Your task to perform on an android device: Go to Yahoo.com Image 0: 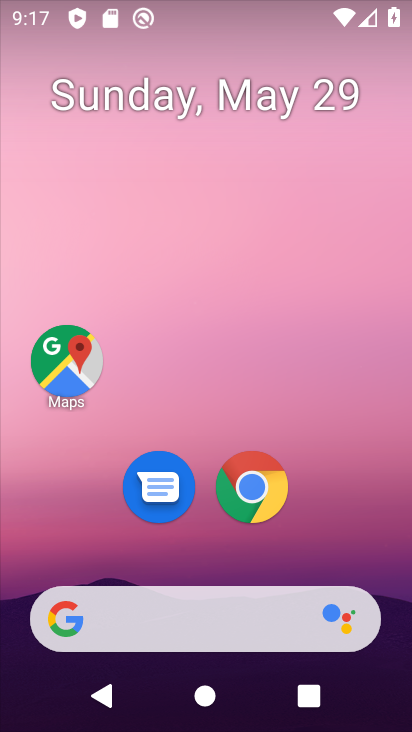
Step 0: click (254, 486)
Your task to perform on an android device: Go to Yahoo.com Image 1: 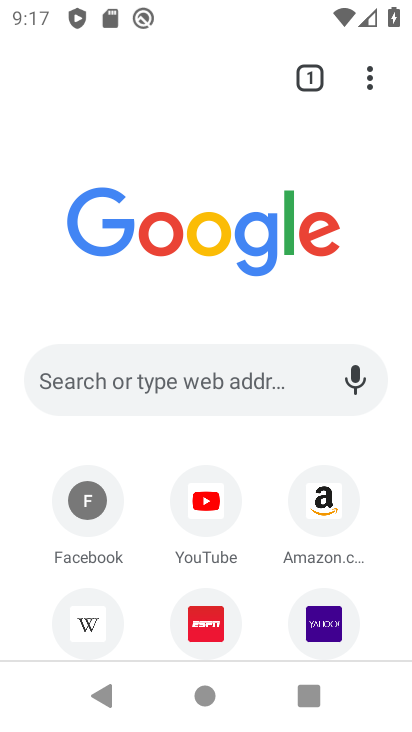
Step 1: click (198, 386)
Your task to perform on an android device: Go to Yahoo.com Image 2: 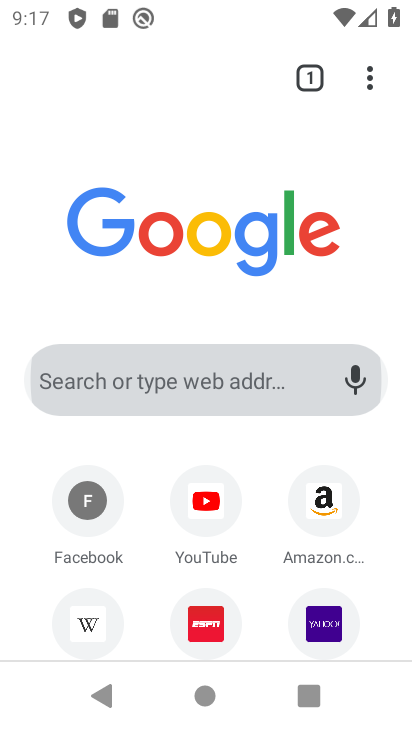
Step 2: click (198, 386)
Your task to perform on an android device: Go to Yahoo.com Image 3: 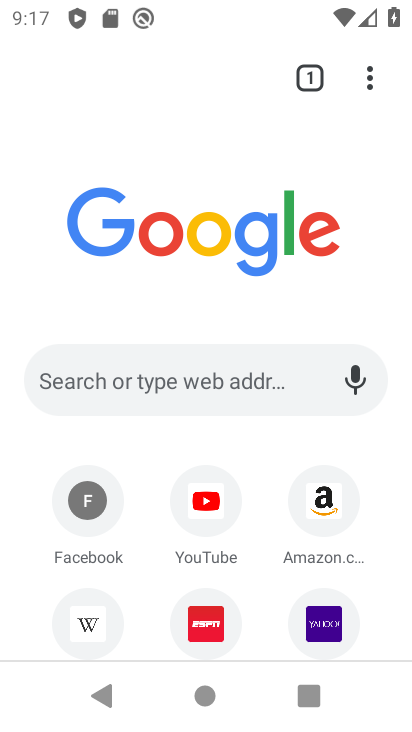
Step 3: click (100, 384)
Your task to perform on an android device: Go to Yahoo.com Image 4: 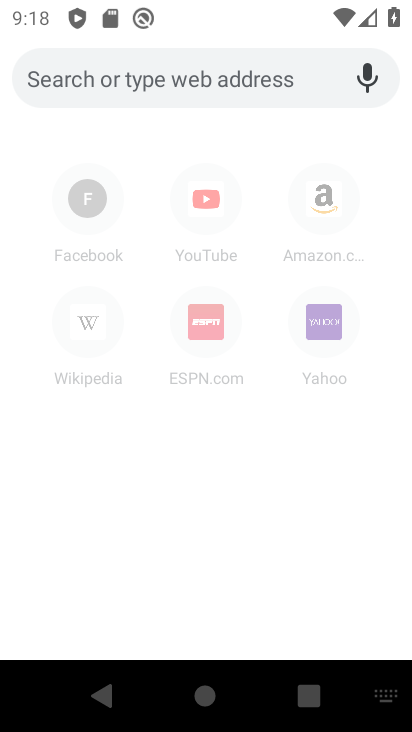
Step 4: type "Yahoo.com"
Your task to perform on an android device: Go to Yahoo.com Image 5: 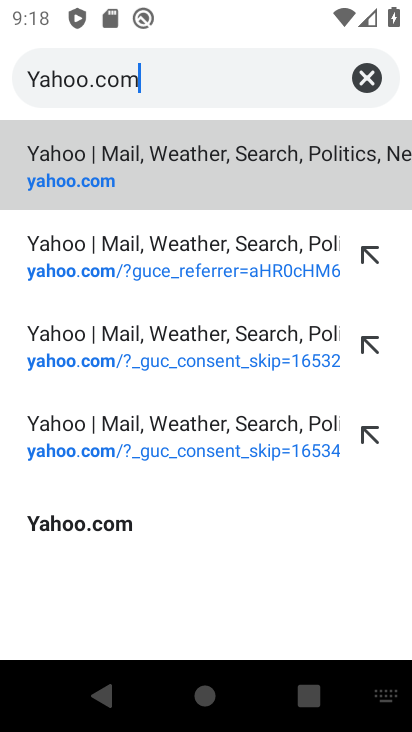
Step 5: click (56, 521)
Your task to perform on an android device: Go to Yahoo.com Image 6: 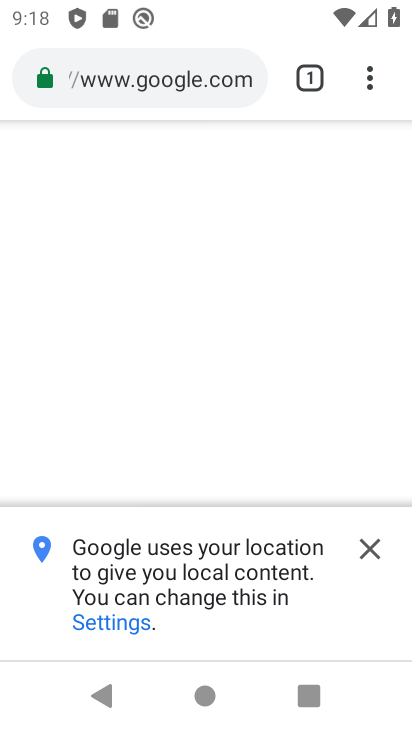
Step 6: click (369, 550)
Your task to perform on an android device: Go to Yahoo.com Image 7: 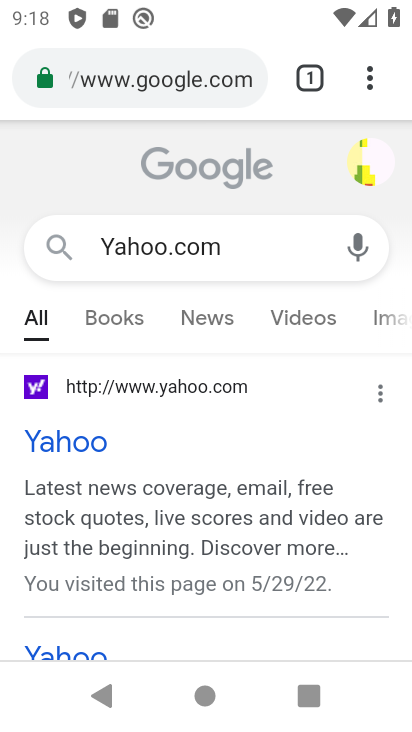
Step 7: task complete